Your task to perform on an android device: Open internet settings Image 0: 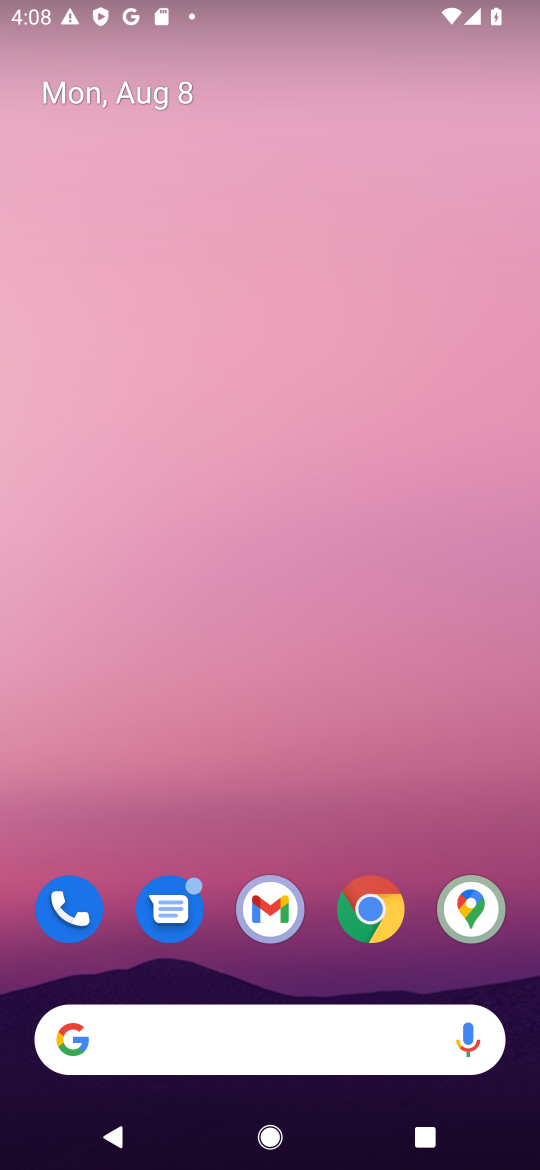
Step 0: press home button
Your task to perform on an android device: Open internet settings Image 1: 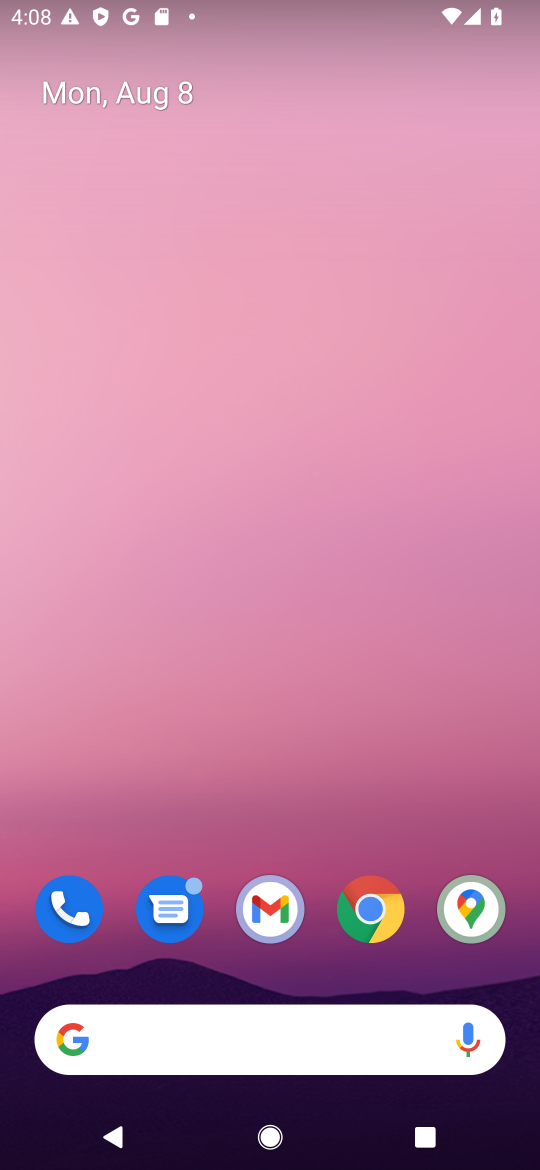
Step 1: drag from (236, 1009) to (474, 108)
Your task to perform on an android device: Open internet settings Image 2: 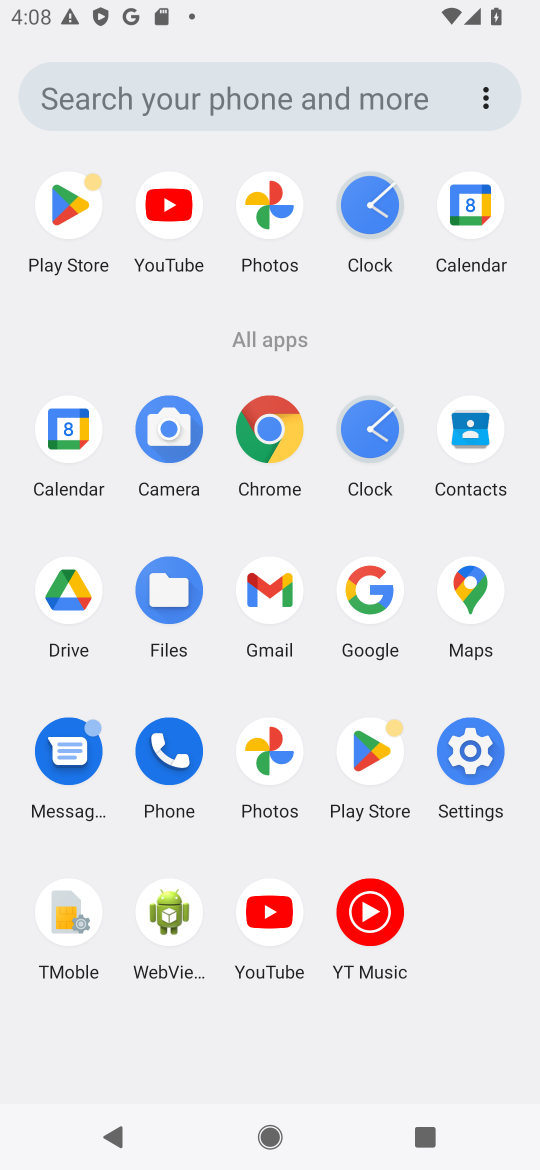
Step 2: click (462, 756)
Your task to perform on an android device: Open internet settings Image 3: 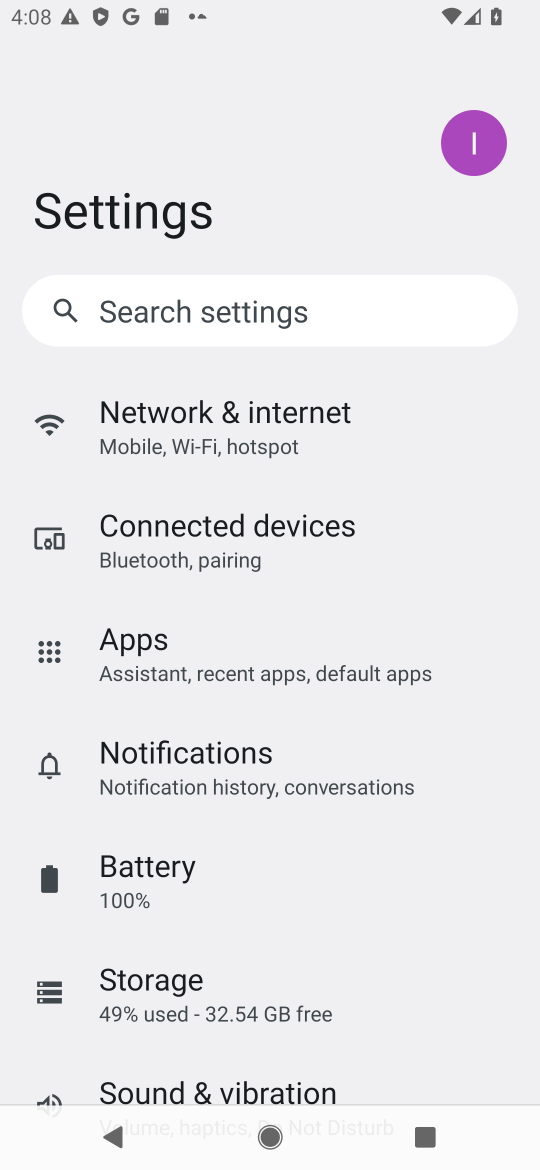
Step 3: click (212, 436)
Your task to perform on an android device: Open internet settings Image 4: 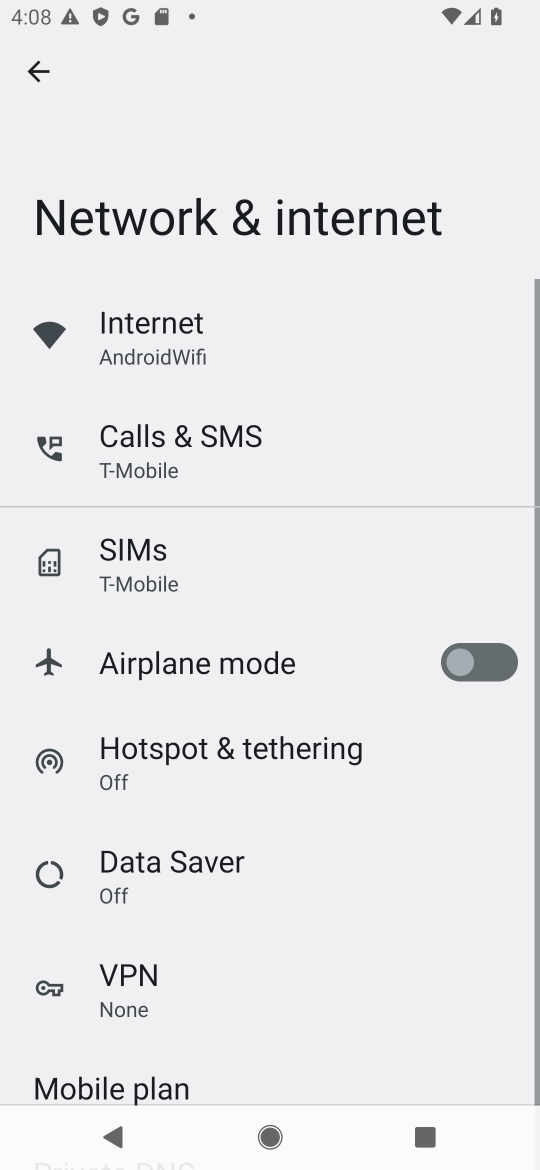
Step 4: click (148, 334)
Your task to perform on an android device: Open internet settings Image 5: 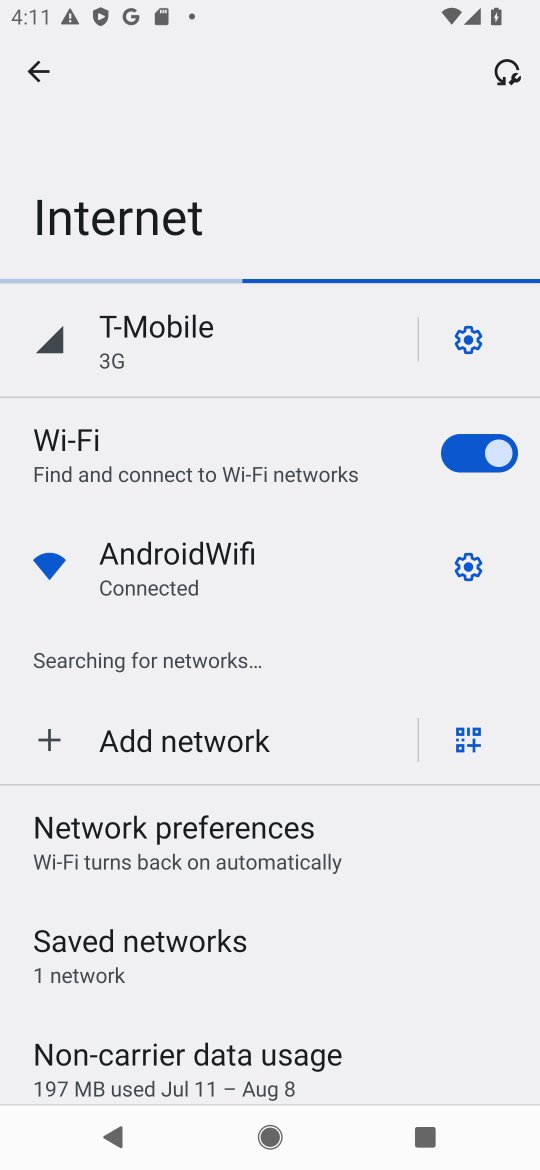
Step 5: task complete